Your task to perform on an android device: open chrome and create a bookmark for the current page Image 0: 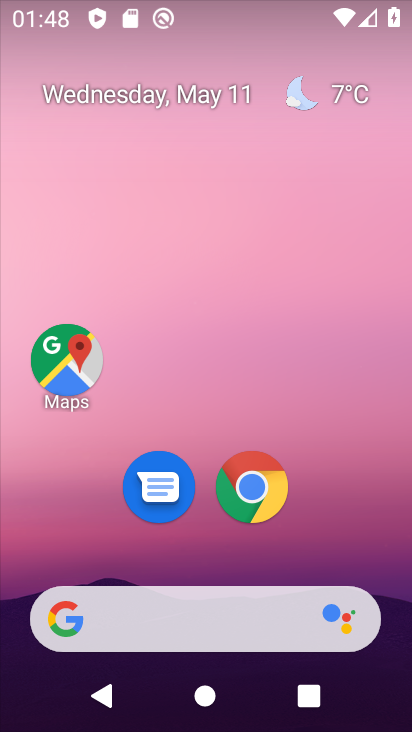
Step 0: click (246, 481)
Your task to perform on an android device: open chrome and create a bookmark for the current page Image 1: 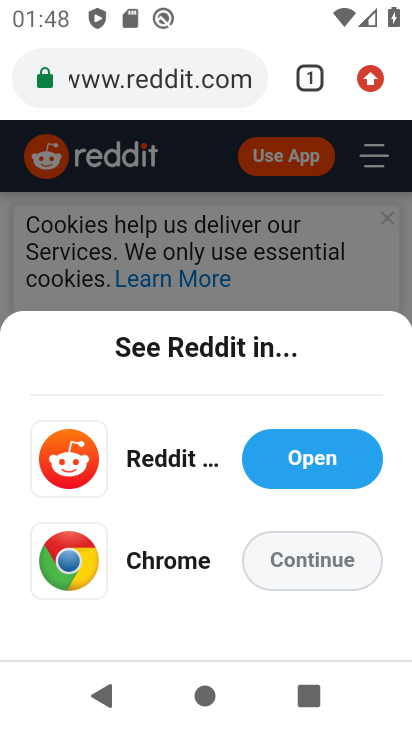
Step 1: task complete